Your task to perform on an android device: Open Reddit.com Image 0: 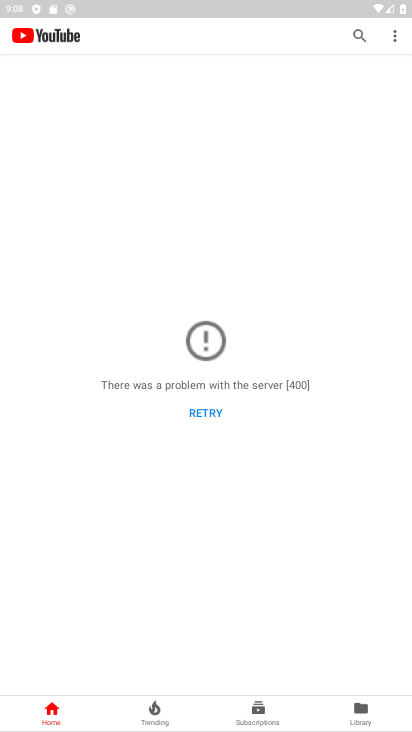
Step 0: press home button
Your task to perform on an android device: Open Reddit.com Image 1: 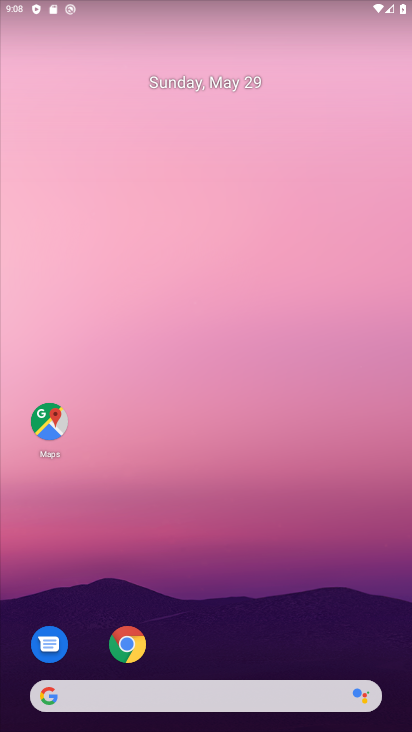
Step 1: click (212, 693)
Your task to perform on an android device: Open Reddit.com Image 2: 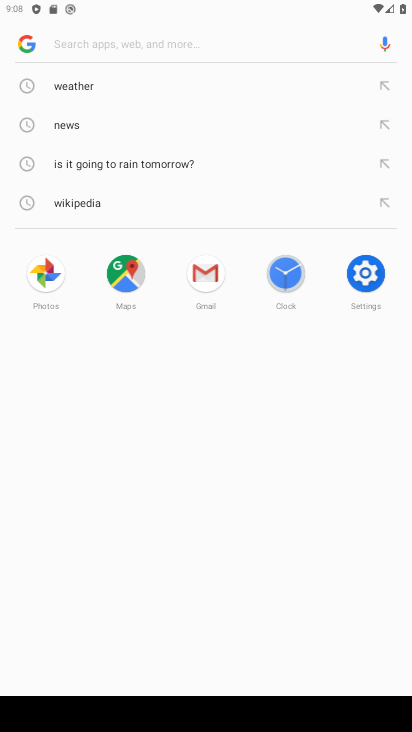
Step 2: type "Reddit.com"
Your task to perform on an android device: Open Reddit.com Image 3: 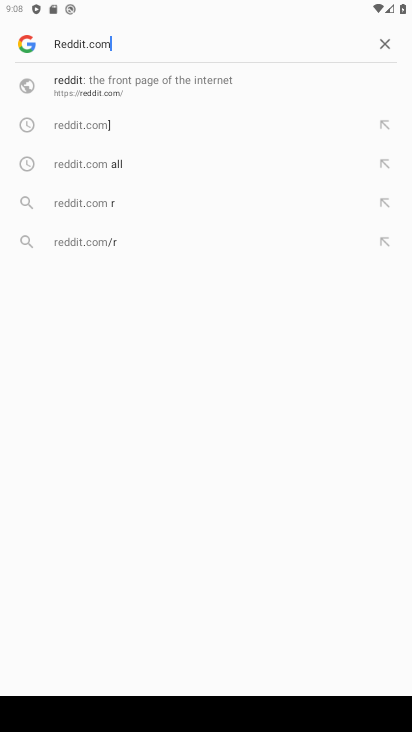
Step 3: click (129, 89)
Your task to perform on an android device: Open Reddit.com Image 4: 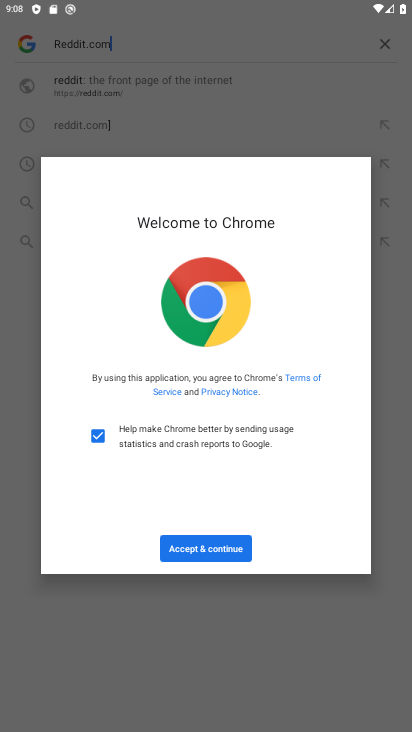
Step 4: click (205, 559)
Your task to perform on an android device: Open Reddit.com Image 5: 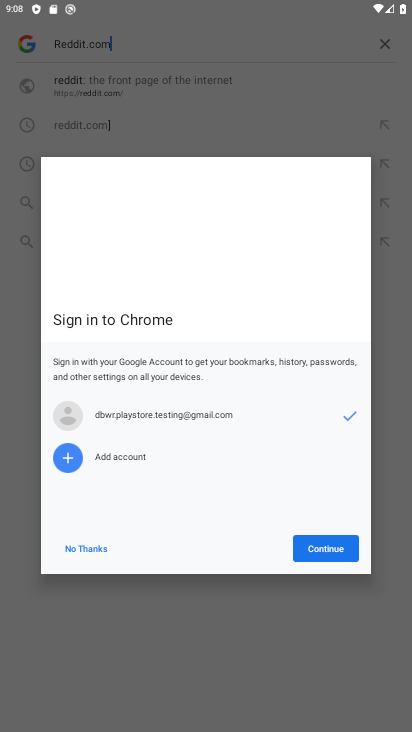
Step 5: click (348, 549)
Your task to perform on an android device: Open Reddit.com Image 6: 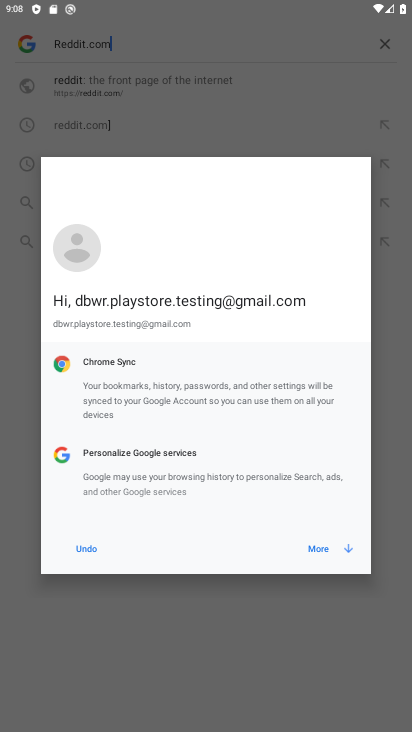
Step 6: click (338, 547)
Your task to perform on an android device: Open Reddit.com Image 7: 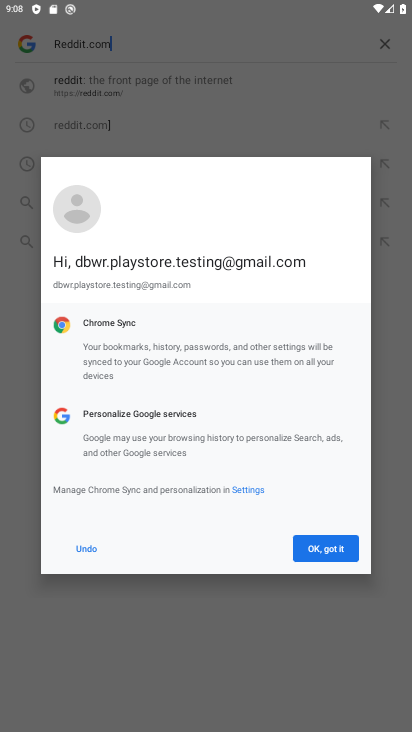
Step 7: click (333, 544)
Your task to perform on an android device: Open Reddit.com Image 8: 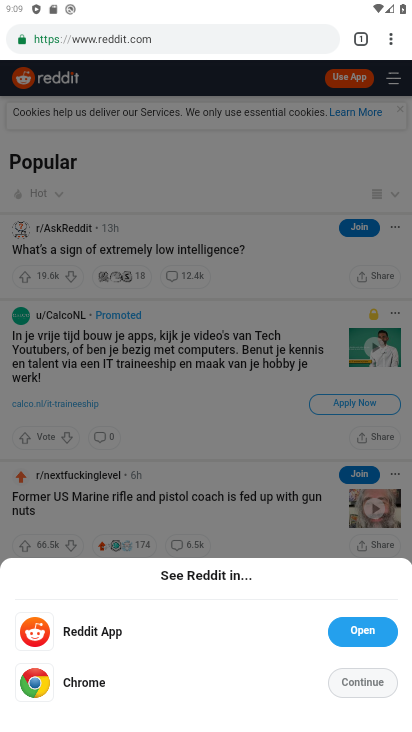
Step 8: task complete